Your task to perform on an android device: turn off wifi Image 0: 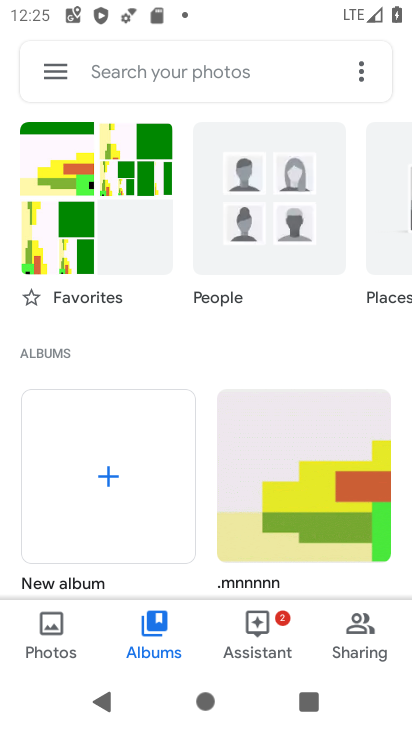
Step 0: press home button
Your task to perform on an android device: turn off wifi Image 1: 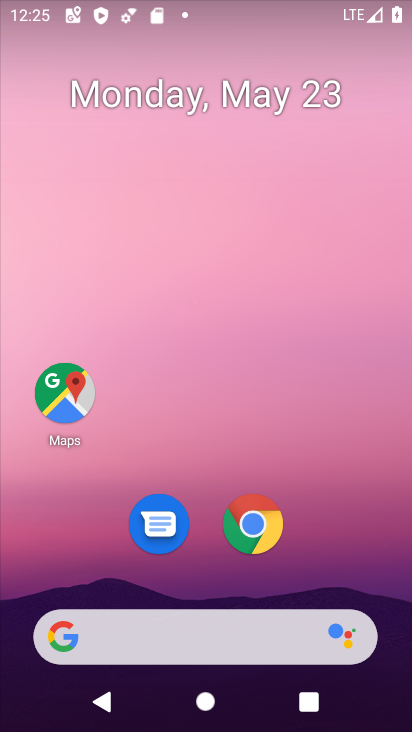
Step 1: drag from (227, 450) to (230, 36)
Your task to perform on an android device: turn off wifi Image 2: 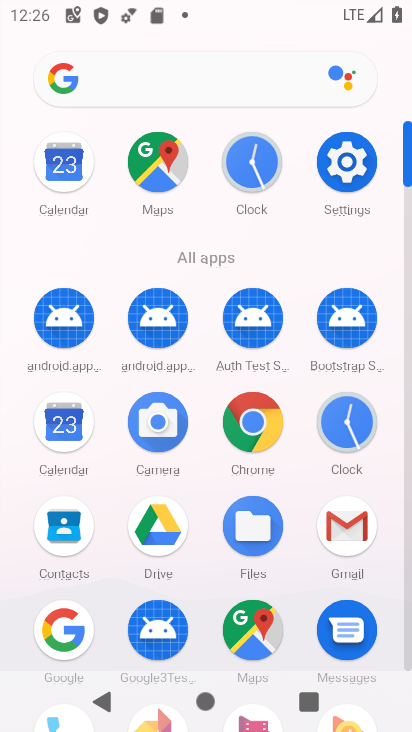
Step 2: click (341, 162)
Your task to perform on an android device: turn off wifi Image 3: 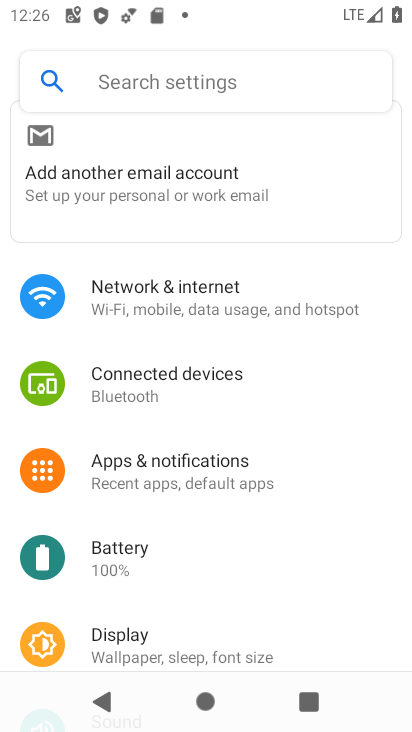
Step 3: click (224, 302)
Your task to perform on an android device: turn off wifi Image 4: 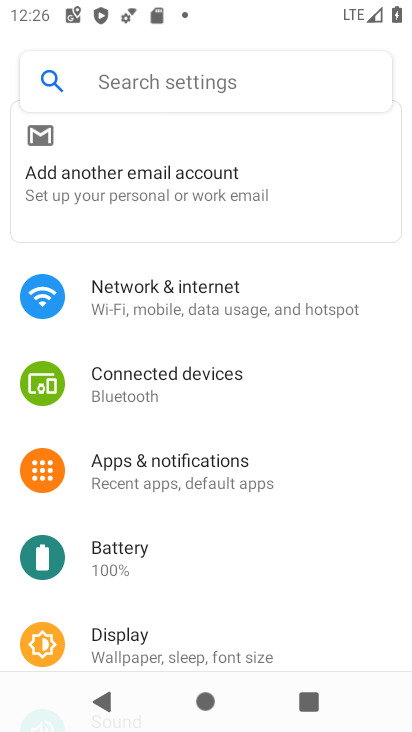
Step 4: click (223, 288)
Your task to perform on an android device: turn off wifi Image 5: 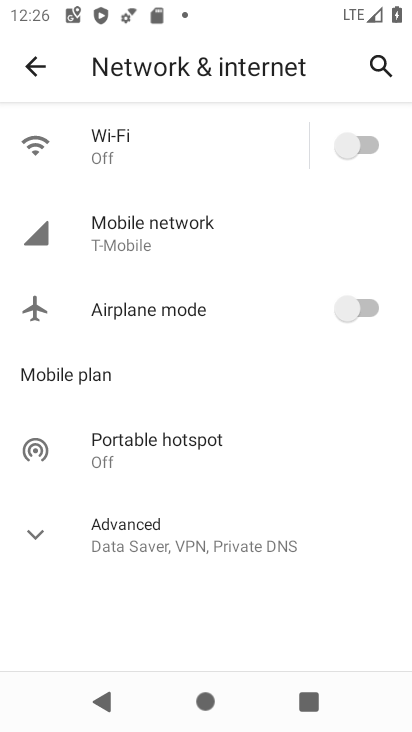
Step 5: task complete